Your task to perform on an android device: stop showing notifications on the lock screen Image 0: 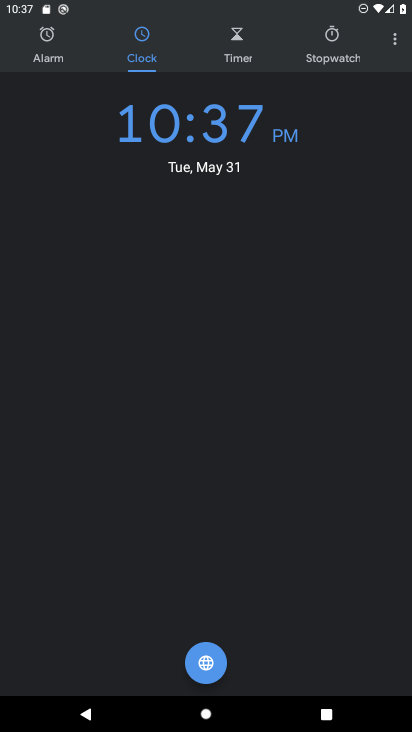
Step 0: press home button
Your task to perform on an android device: stop showing notifications on the lock screen Image 1: 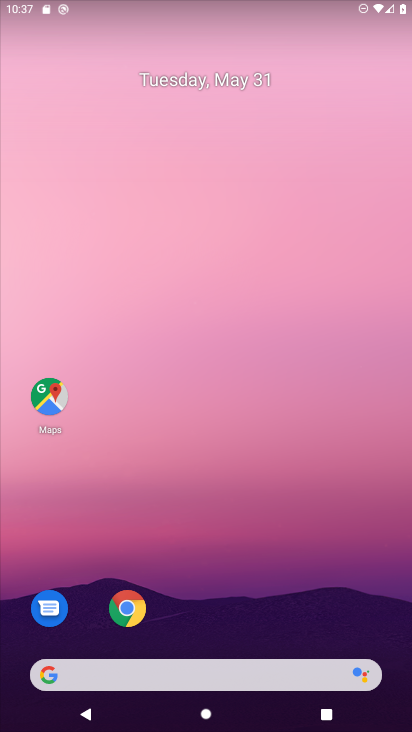
Step 1: drag from (311, 599) to (313, 155)
Your task to perform on an android device: stop showing notifications on the lock screen Image 2: 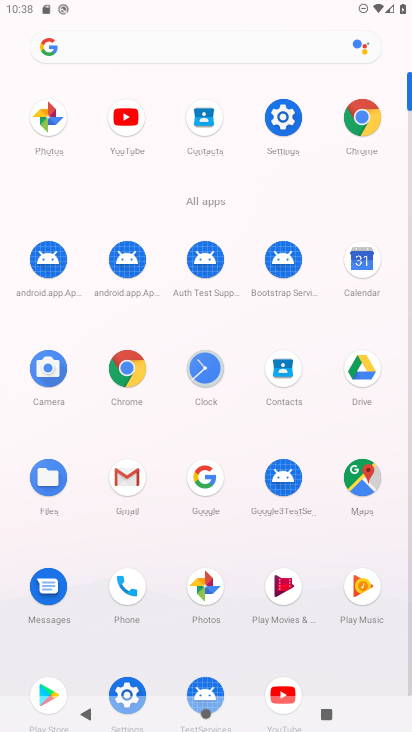
Step 2: click (133, 682)
Your task to perform on an android device: stop showing notifications on the lock screen Image 3: 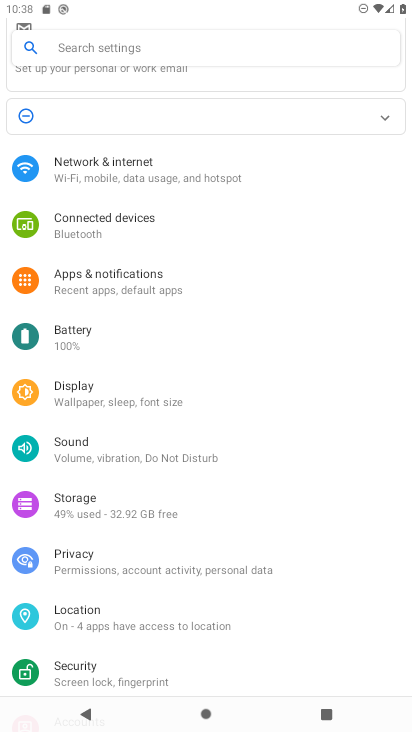
Step 3: click (156, 270)
Your task to perform on an android device: stop showing notifications on the lock screen Image 4: 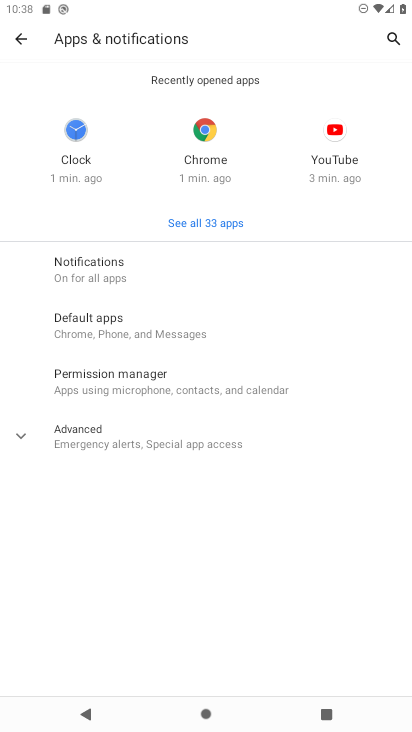
Step 4: click (156, 268)
Your task to perform on an android device: stop showing notifications on the lock screen Image 5: 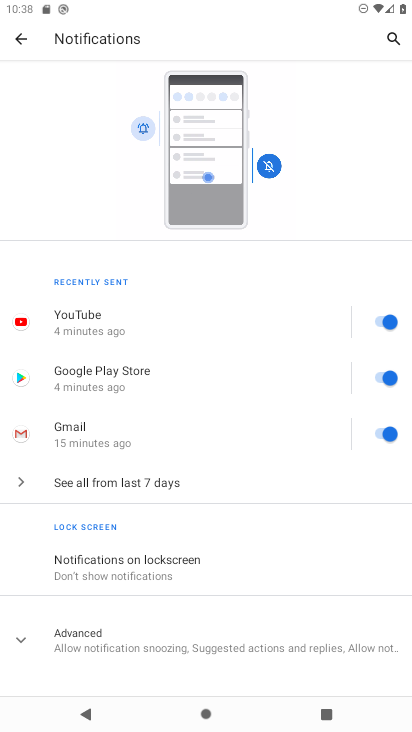
Step 5: drag from (228, 611) to (238, 407)
Your task to perform on an android device: stop showing notifications on the lock screen Image 6: 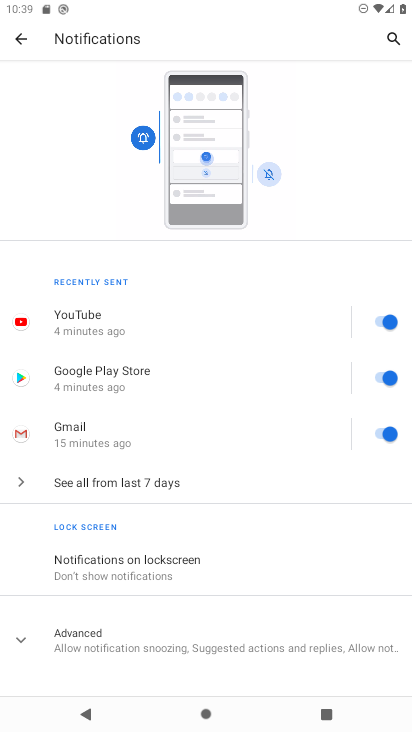
Step 6: click (218, 547)
Your task to perform on an android device: stop showing notifications on the lock screen Image 7: 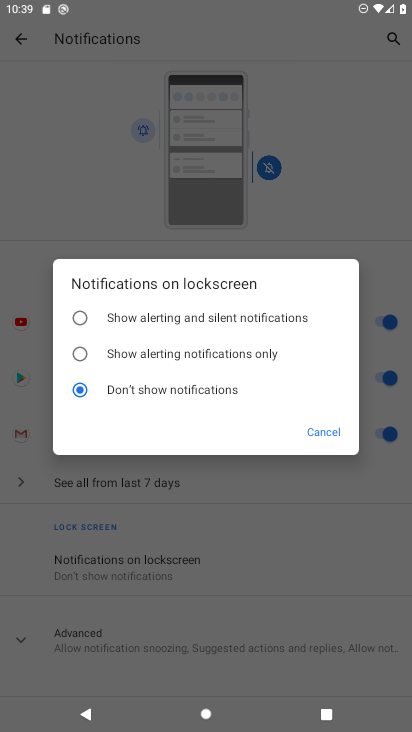
Step 7: task complete